Your task to perform on an android device: open wifi settings Image 0: 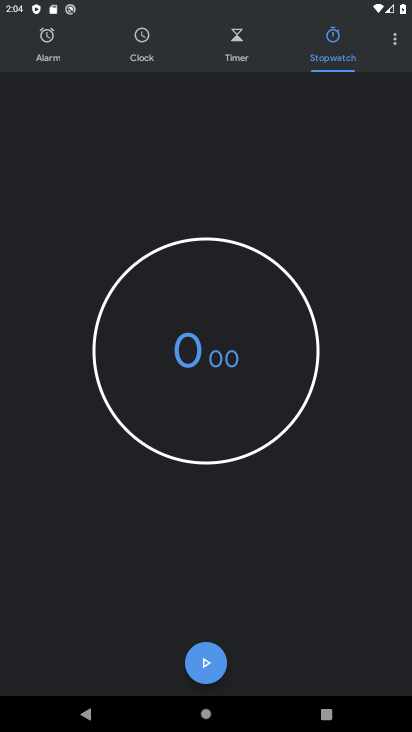
Step 0: press back button
Your task to perform on an android device: open wifi settings Image 1: 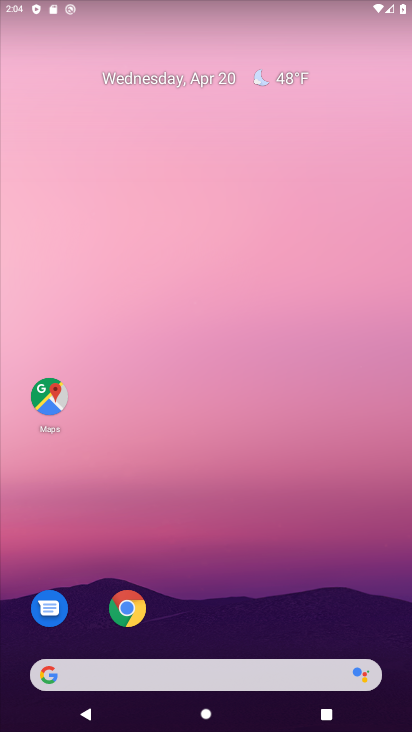
Step 1: drag from (222, 617) to (177, 146)
Your task to perform on an android device: open wifi settings Image 2: 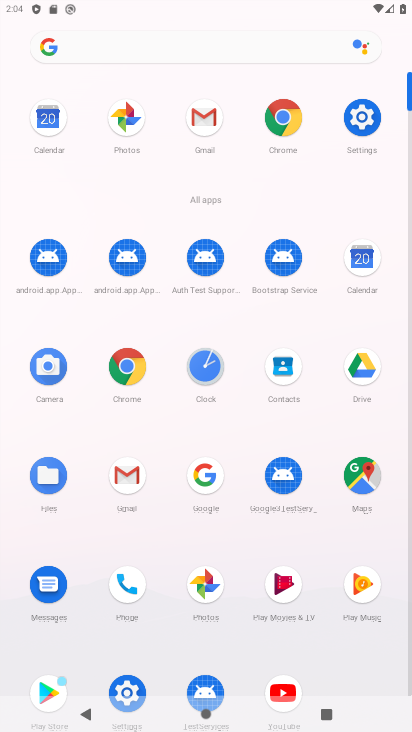
Step 2: click (360, 144)
Your task to perform on an android device: open wifi settings Image 3: 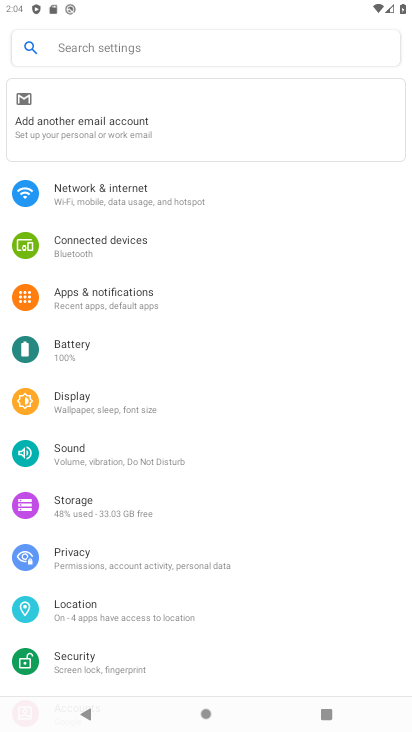
Step 3: click (233, 206)
Your task to perform on an android device: open wifi settings Image 4: 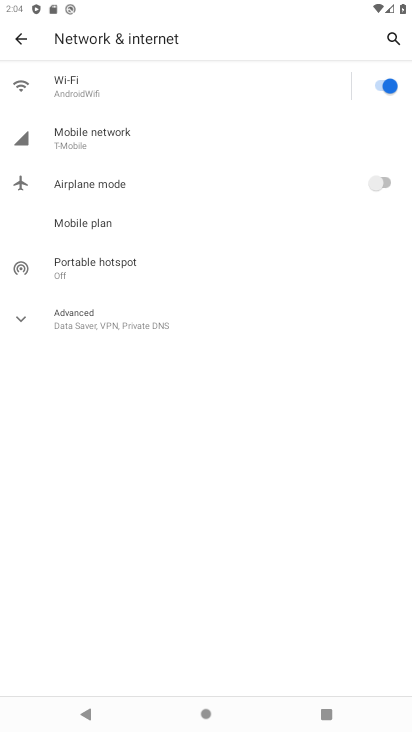
Step 4: click (119, 92)
Your task to perform on an android device: open wifi settings Image 5: 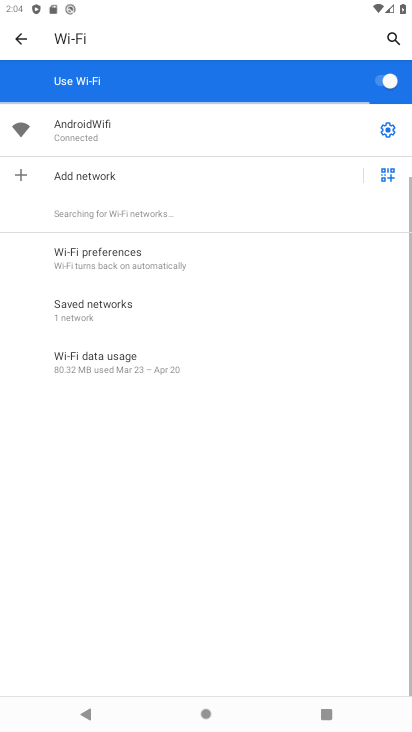
Step 5: task complete